Your task to perform on an android device: delete a single message in the gmail app Image 0: 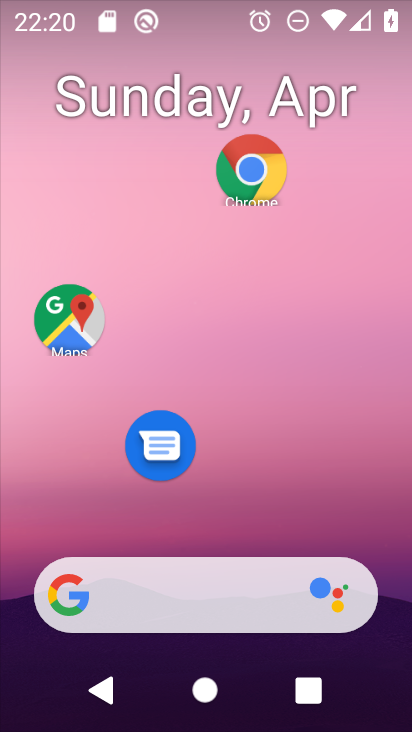
Step 0: press home button
Your task to perform on an android device: delete a single message in the gmail app Image 1: 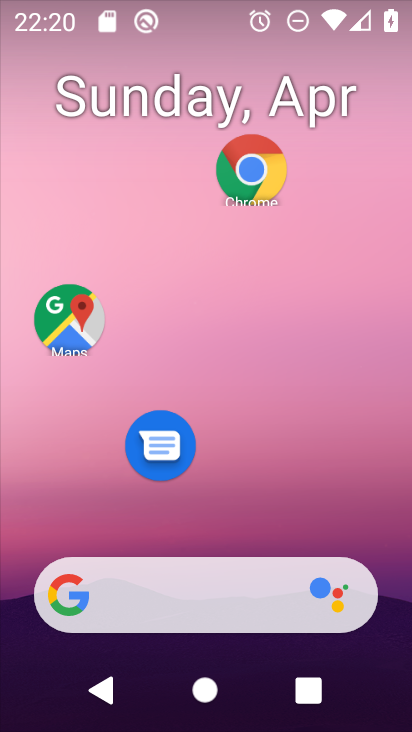
Step 1: drag from (244, 500) to (241, 83)
Your task to perform on an android device: delete a single message in the gmail app Image 2: 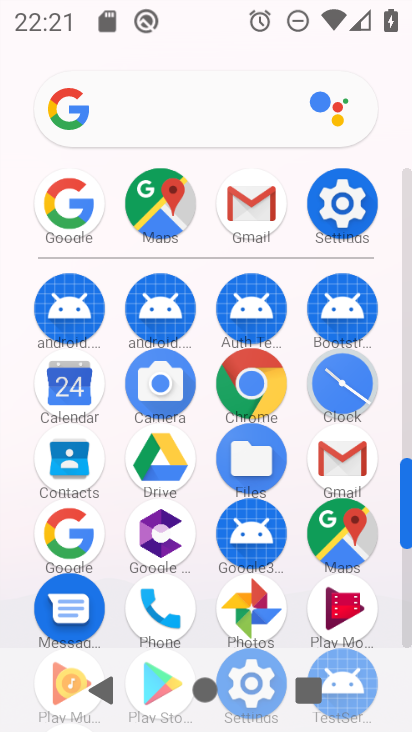
Step 2: click (247, 206)
Your task to perform on an android device: delete a single message in the gmail app Image 3: 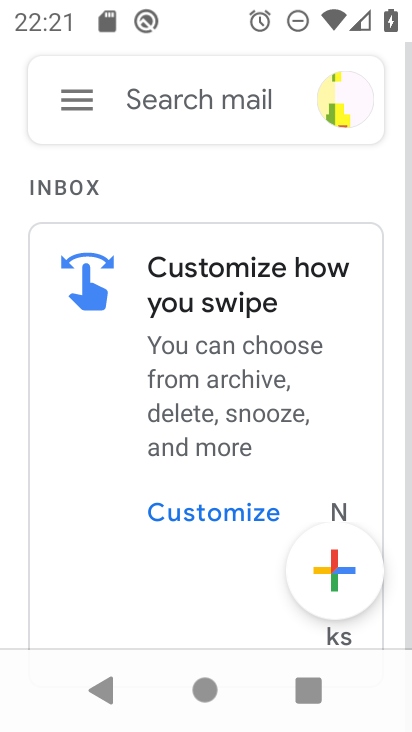
Step 3: click (100, 85)
Your task to perform on an android device: delete a single message in the gmail app Image 4: 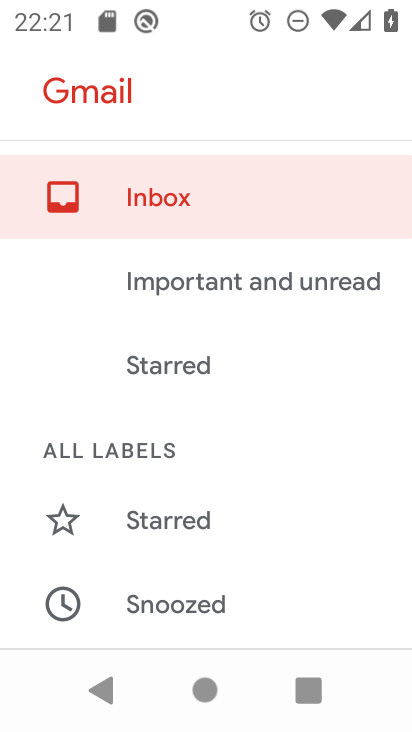
Step 4: drag from (201, 487) to (264, 8)
Your task to perform on an android device: delete a single message in the gmail app Image 5: 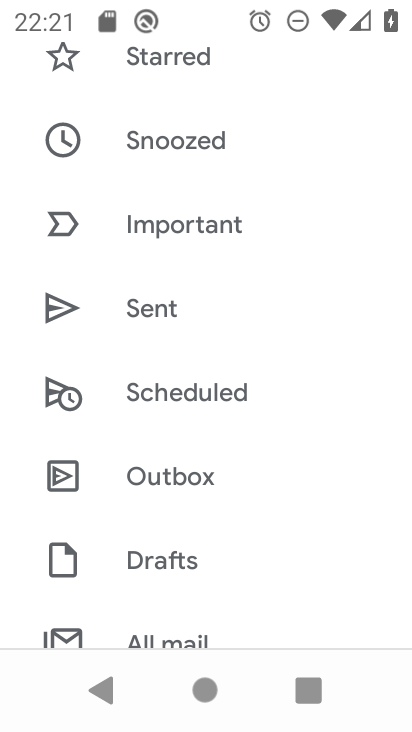
Step 5: drag from (214, 487) to (249, 151)
Your task to perform on an android device: delete a single message in the gmail app Image 6: 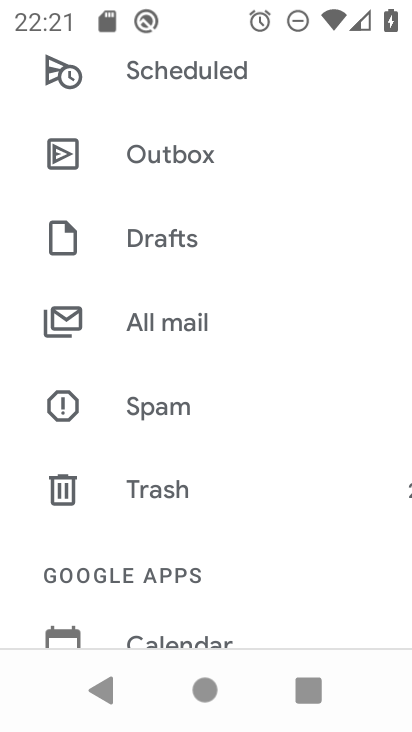
Step 6: click (176, 326)
Your task to perform on an android device: delete a single message in the gmail app Image 7: 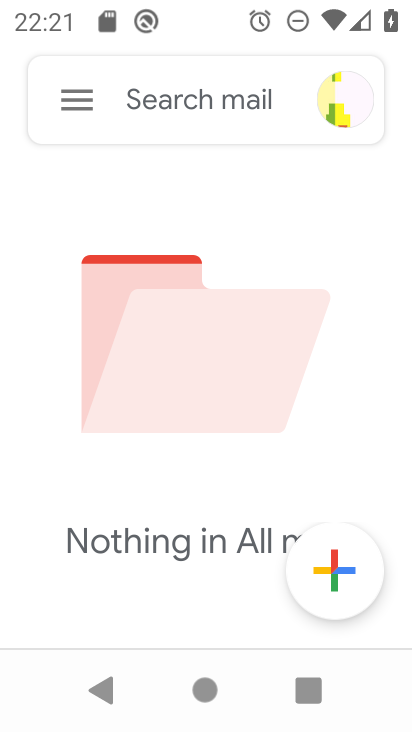
Step 7: task complete